Your task to perform on an android device: Go to ESPN.com Image 0: 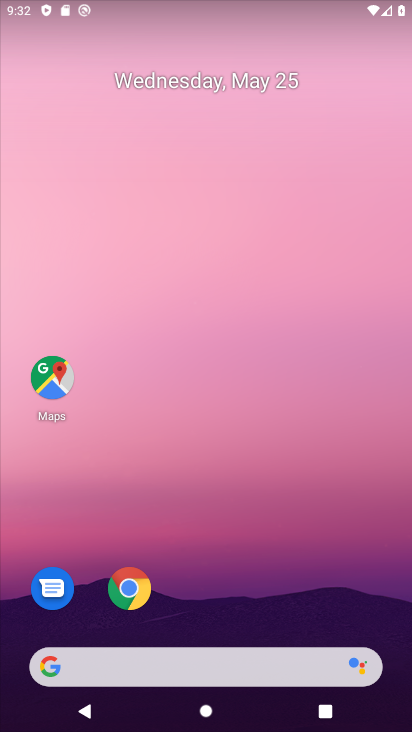
Step 0: click (119, 591)
Your task to perform on an android device: Go to ESPN.com Image 1: 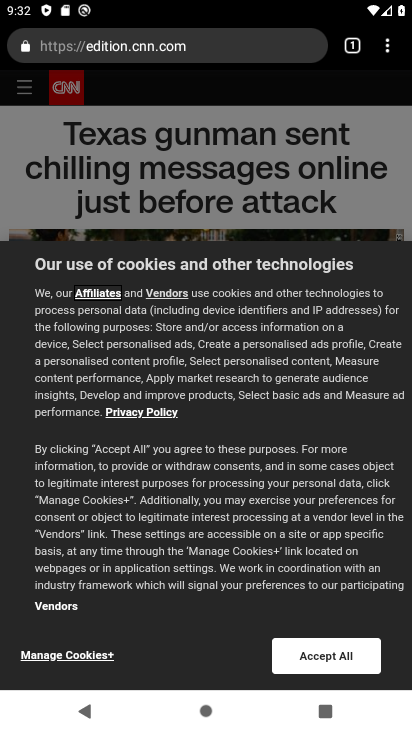
Step 1: click (146, 40)
Your task to perform on an android device: Go to ESPN.com Image 2: 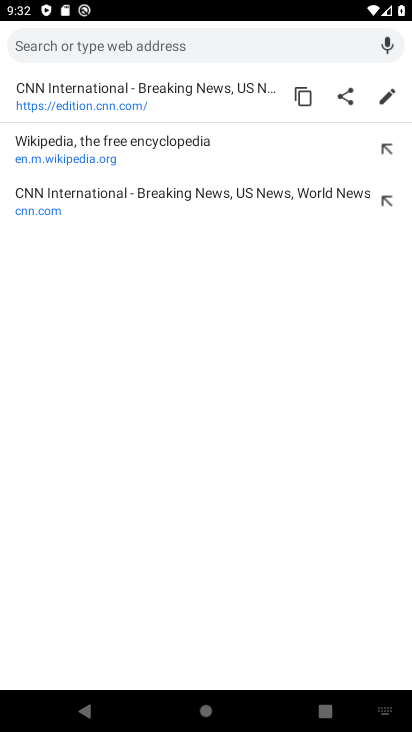
Step 2: type "Espn.com"
Your task to perform on an android device: Go to ESPN.com Image 3: 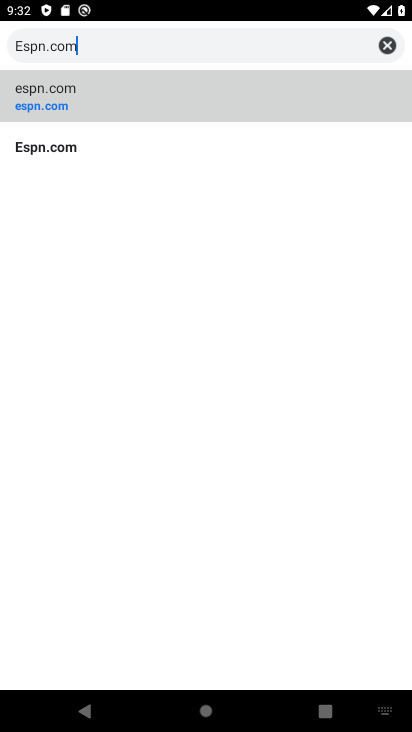
Step 3: click (189, 93)
Your task to perform on an android device: Go to ESPN.com Image 4: 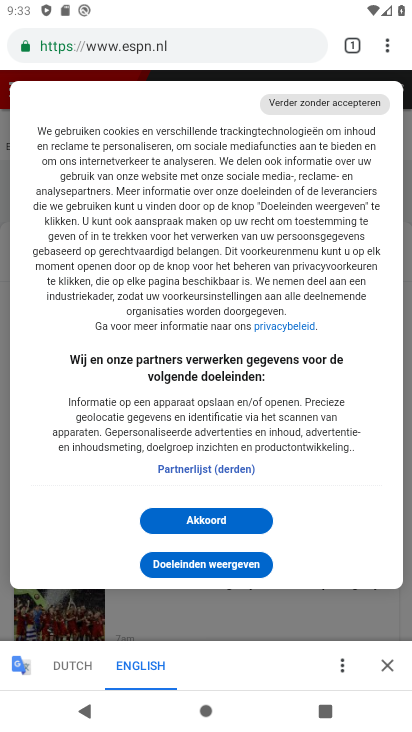
Step 4: task complete